Your task to perform on an android device: Go to Android settings Image 0: 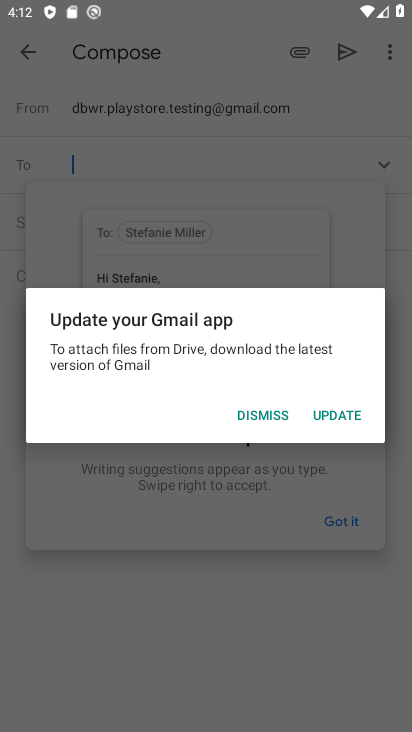
Step 0: press home button
Your task to perform on an android device: Go to Android settings Image 1: 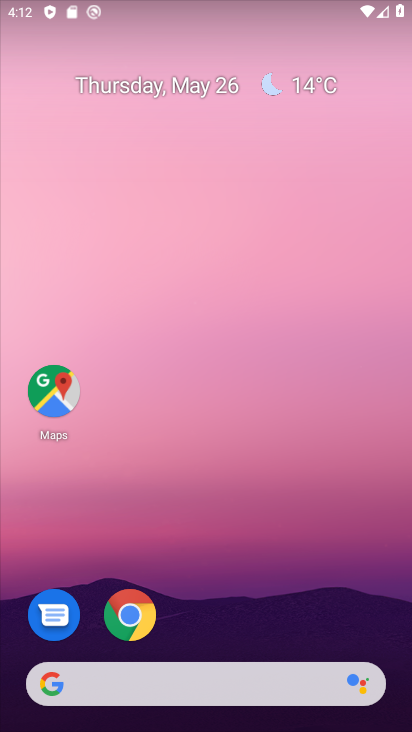
Step 1: drag from (328, 473) to (272, 49)
Your task to perform on an android device: Go to Android settings Image 2: 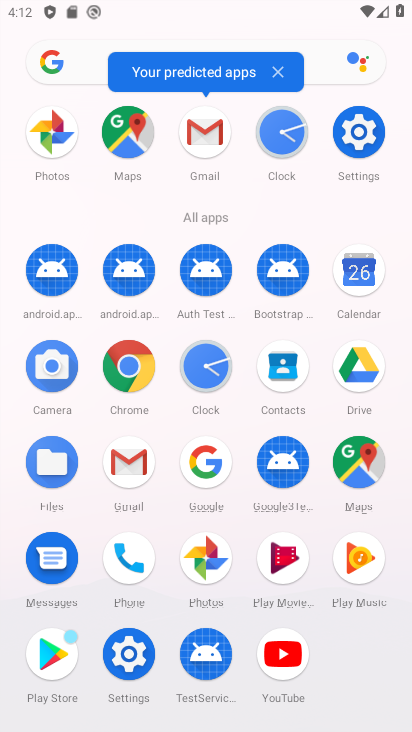
Step 2: click (344, 133)
Your task to perform on an android device: Go to Android settings Image 3: 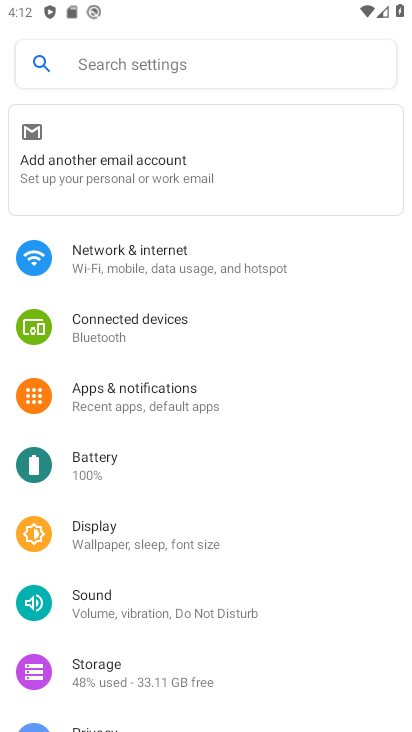
Step 3: task complete